Your task to perform on an android device: Search for Italian restaurants on Maps Image 0: 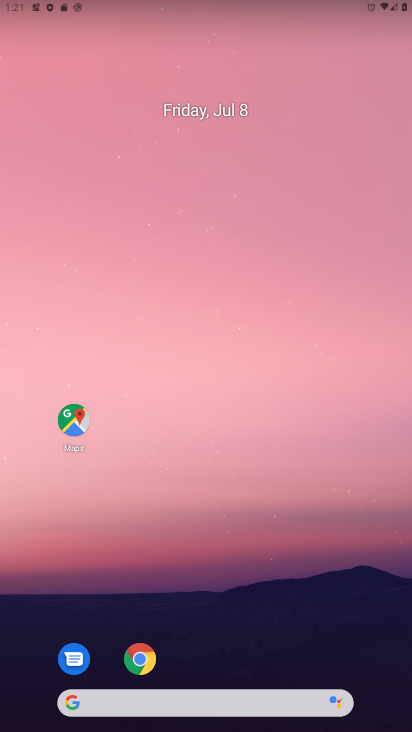
Step 0: click (70, 427)
Your task to perform on an android device: Search for Italian restaurants on Maps Image 1: 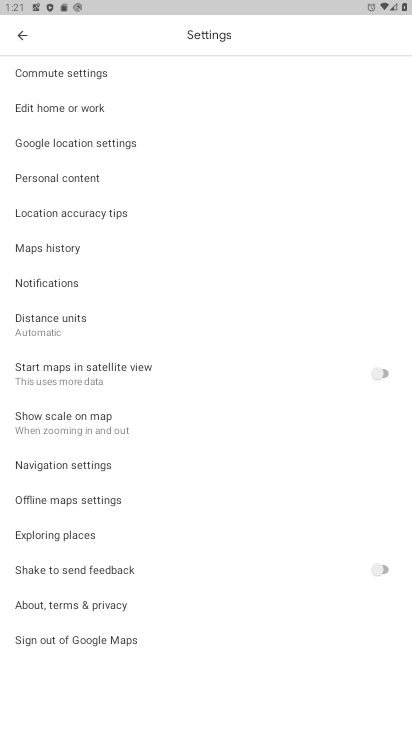
Step 1: click (19, 34)
Your task to perform on an android device: Search for Italian restaurants on Maps Image 2: 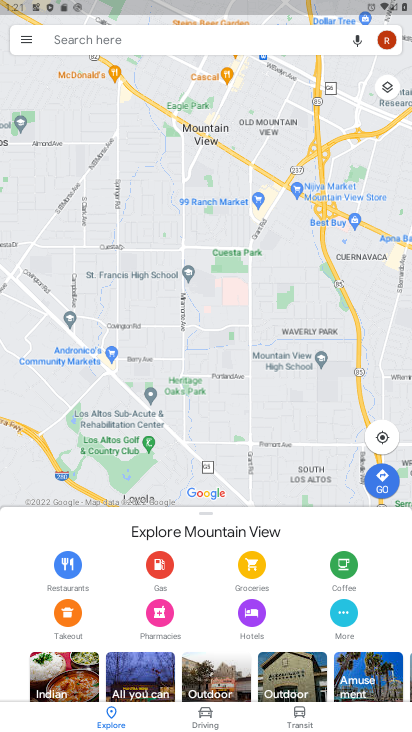
Step 2: click (140, 35)
Your task to perform on an android device: Search for Italian restaurants on Maps Image 3: 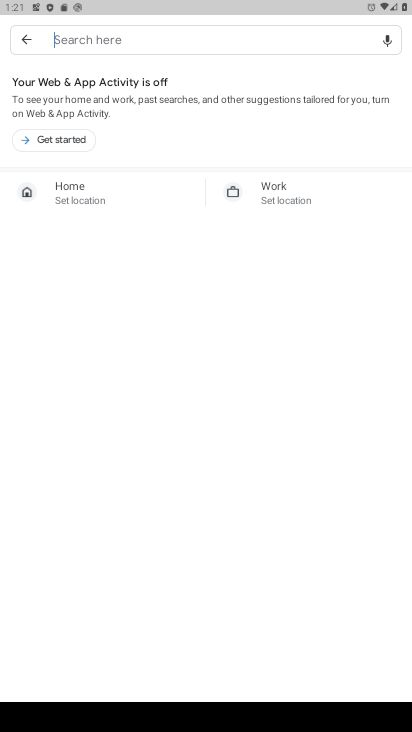
Step 3: type "italian restaurants"
Your task to perform on an android device: Search for Italian restaurants on Maps Image 4: 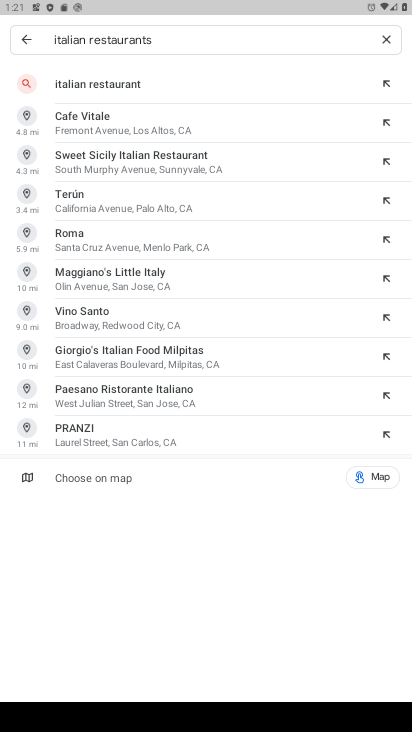
Step 4: click (140, 79)
Your task to perform on an android device: Search for Italian restaurants on Maps Image 5: 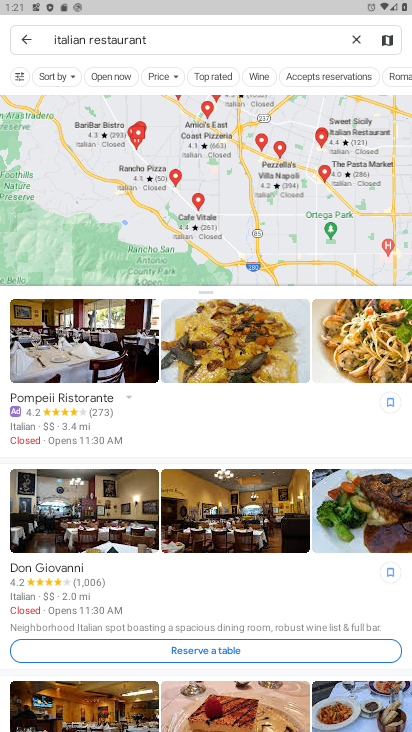
Step 5: task complete